Your task to perform on an android device: change your default location settings in chrome Image 0: 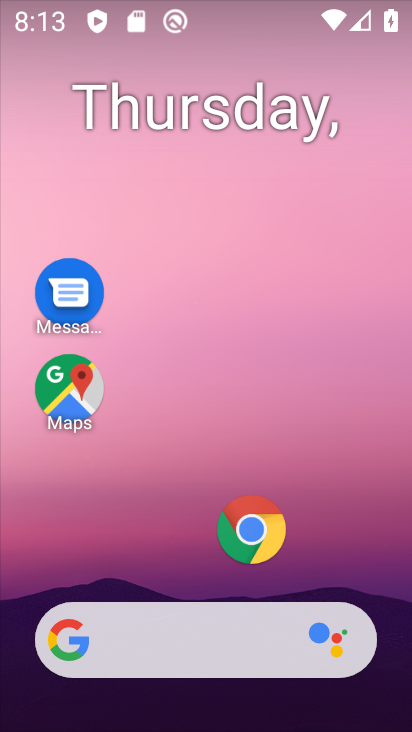
Step 0: click (252, 540)
Your task to perform on an android device: change your default location settings in chrome Image 1: 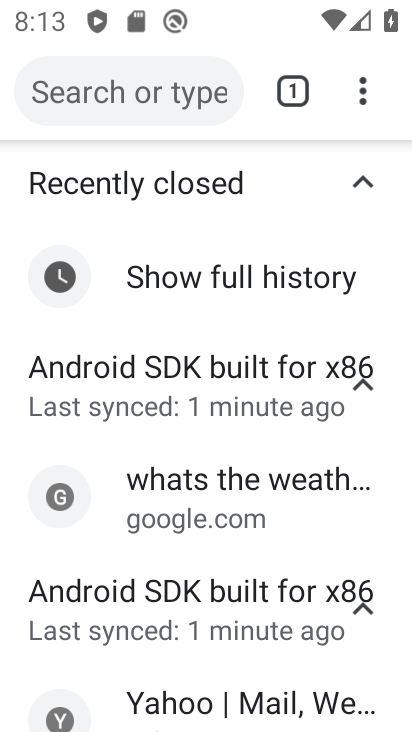
Step 1: click (344, 80)
Your task to perform on an android device: change your default location settings in chrome Image 2: 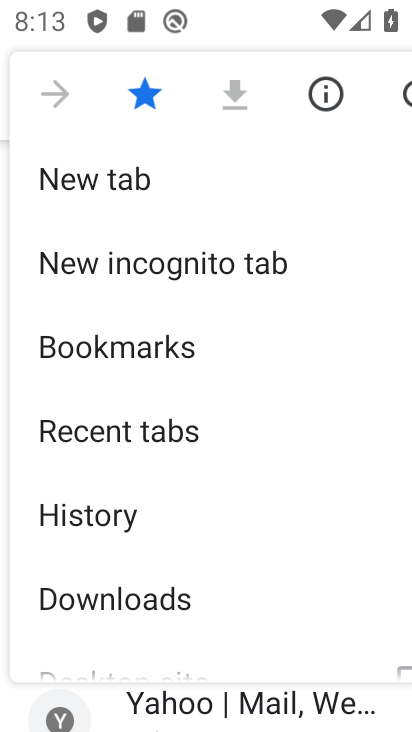
Step 2: drag from (117, 592) to (128, 229)
Your task to perform on an android device: change your default location settings in chrome Image 3: 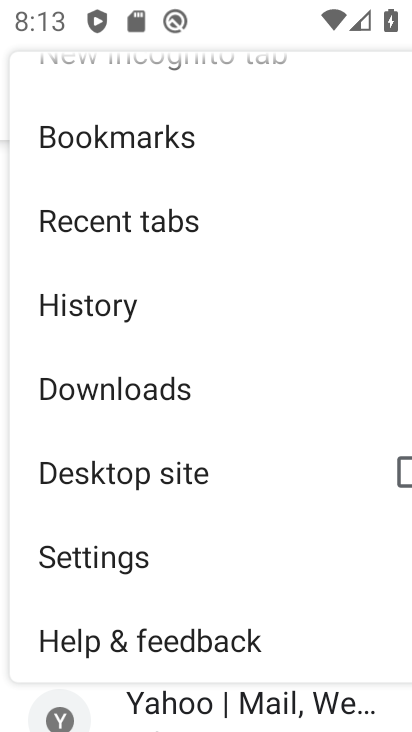
Step 3: click (163, 560)
Your task to perform on an android device: change your default location settings in chrome Image 4: 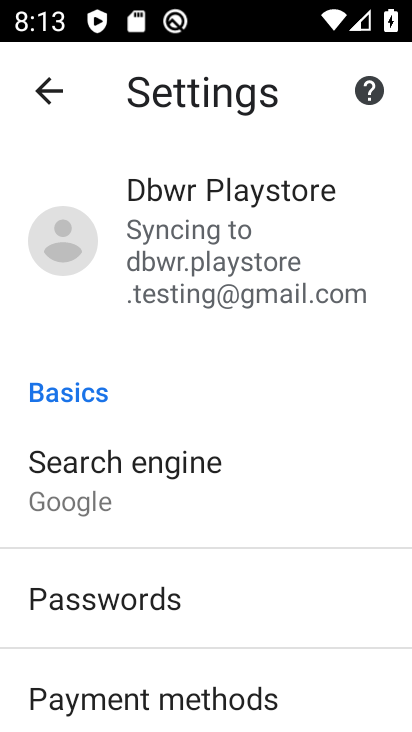
Step 4: drag from (156, 646) to (247, 57)
Your task to perform on an android device: change your default location settings in chrome Image 5: 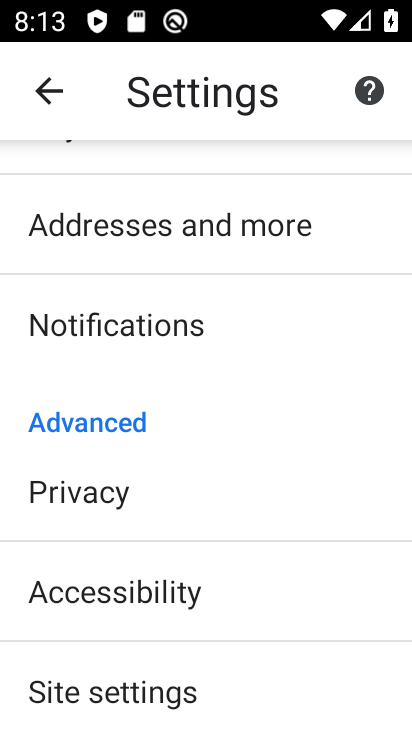
Step 5: click (113, 707)
Your task to perform on an android device: change your default location settings in chrome Image 6: 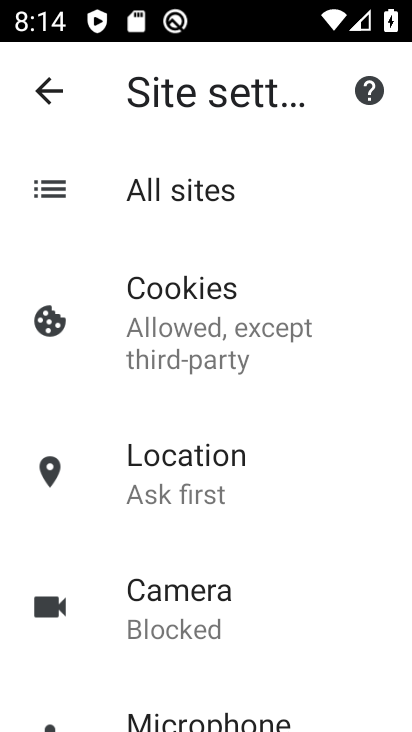
Step 6: click (209, 461)
Your task to perform on an android device: change your default location settings in chrome Image 7: 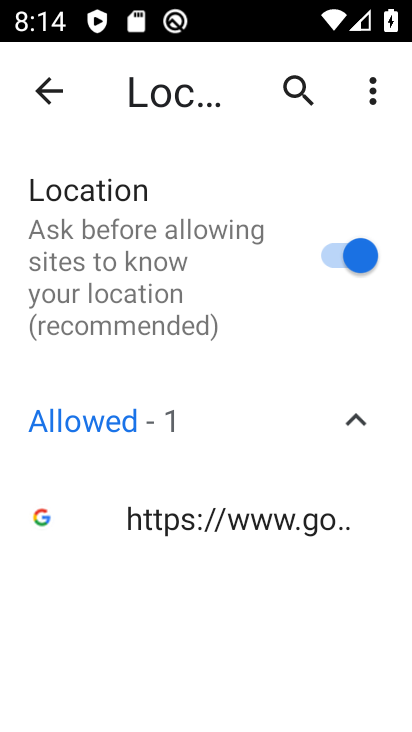
Step 7: click (356, 79)
Your task to perform on an android device: change your default location settings in chrome Image 8: 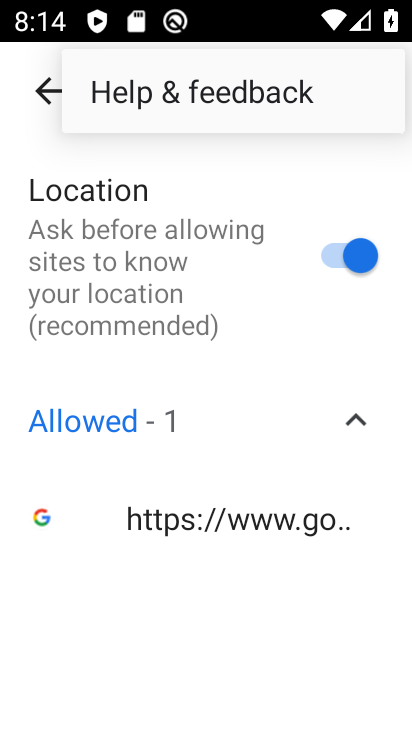
Step 8: click (353, 264)
Your task to perform on an android device: change your default location settings in chrome Image 9: 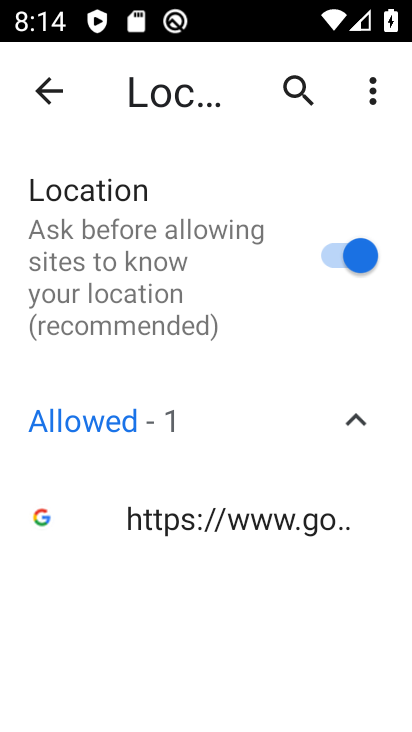
Step 9: click (347, 249)
Your task to perform on an android device: change your default location settings in chrome Image 10: 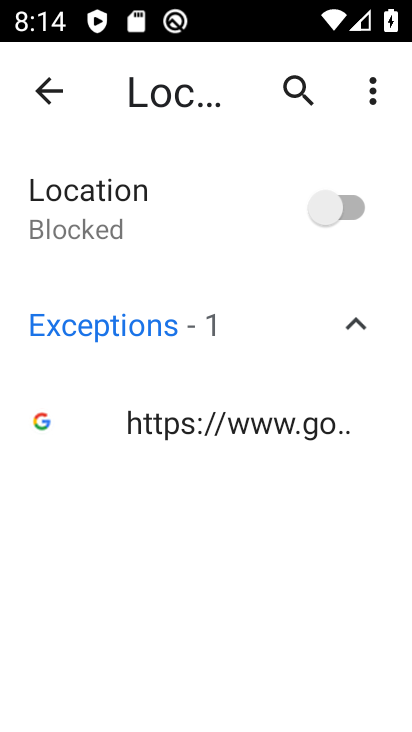
Step 10: task complete